Your task to perform on an android device: Play the last video I watched on Youtube Image 0: 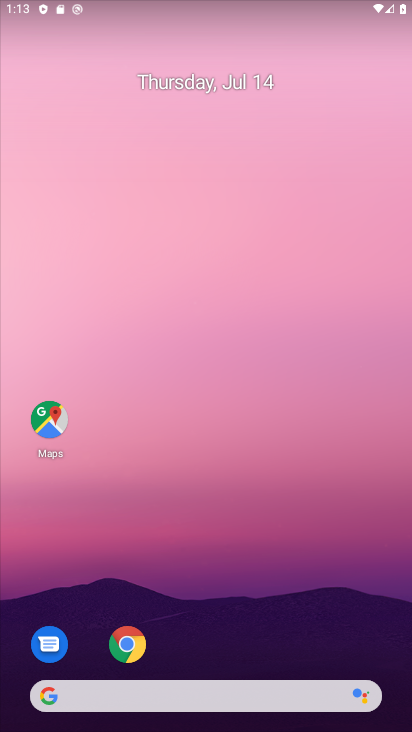
Step 0: drag from (201, 685) to (275, 174)
Your task to perform on an android device: Play the last video I watched on Youtube Image 1: 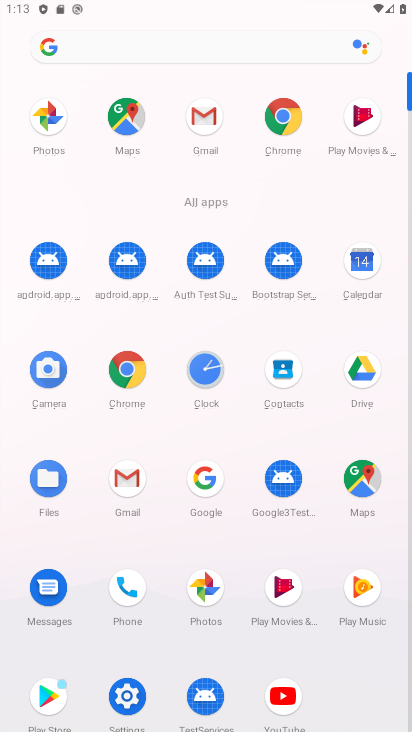
Step 1: click (298, 701)
Your task to perform on an android device: Play the last video I watched on Youtube Image 2: 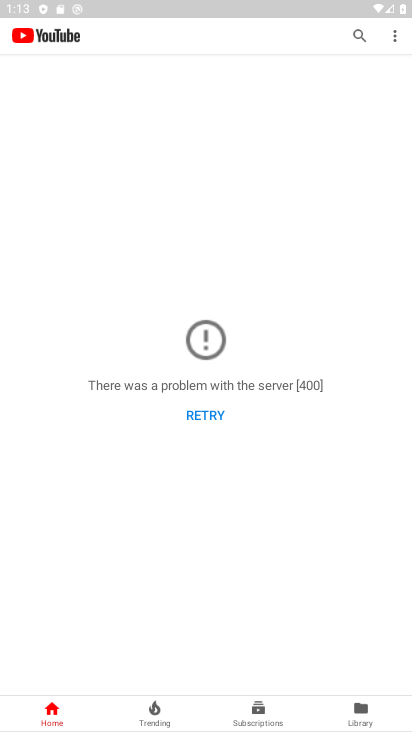
Step 2: click (352, 706)
Your task to perform on an android device: Play the last video I watched on Youtube Image 3: 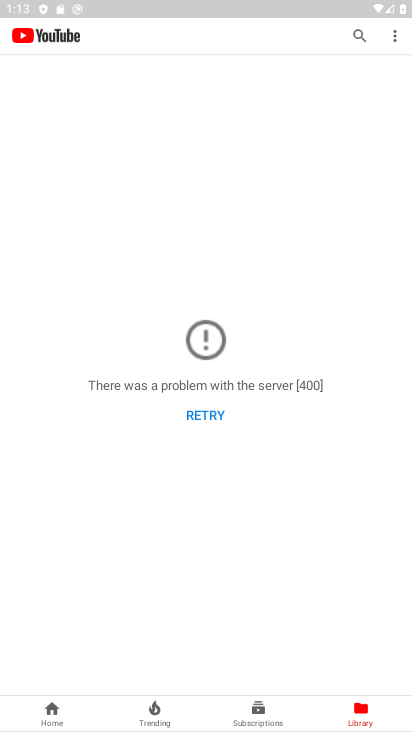
Step 3: task complete